Your task to perform on an android device: Open the calendar and show me this week's events? Image 0: 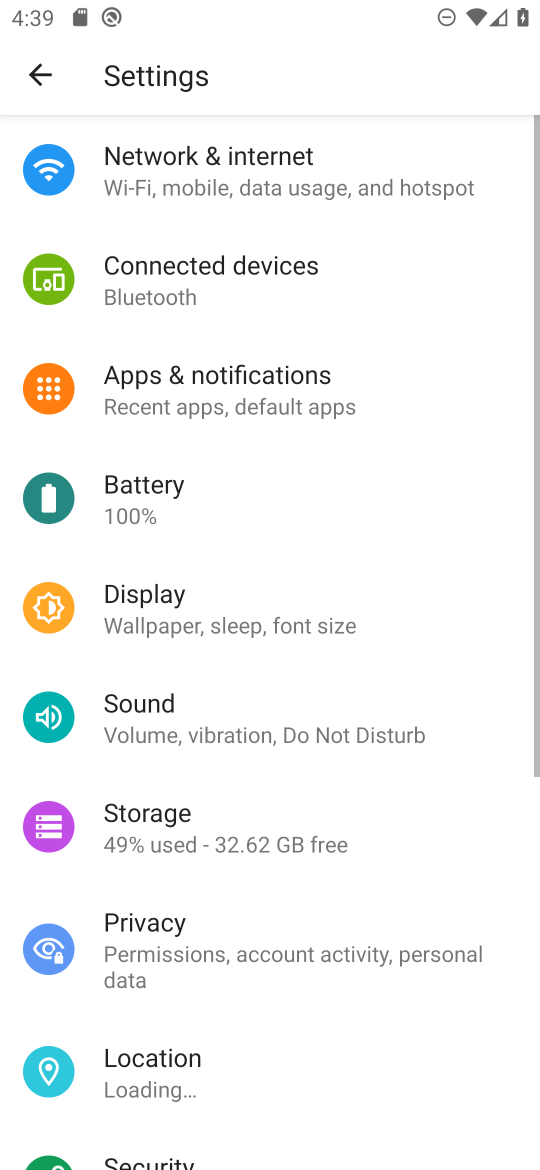
Step 0: press home button
Your task to perform on an android device: Open the calendar and show me this week's events? Image 1: 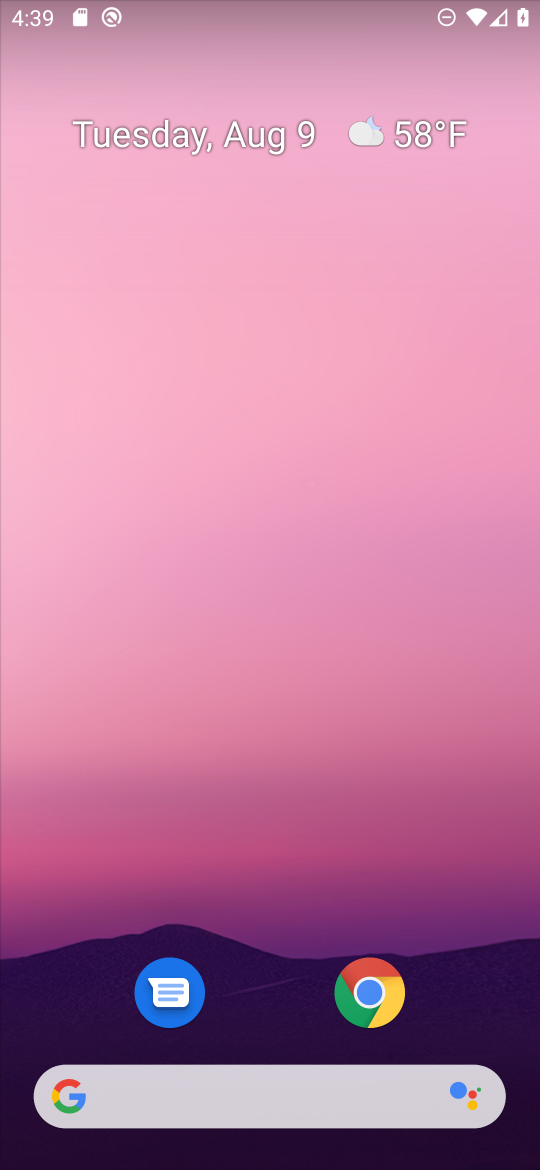
Step 1: drag from (257, 1117) to (289, 9)
Your task to perform on an android device: Open the calendar and show me this week's events? Image 2: 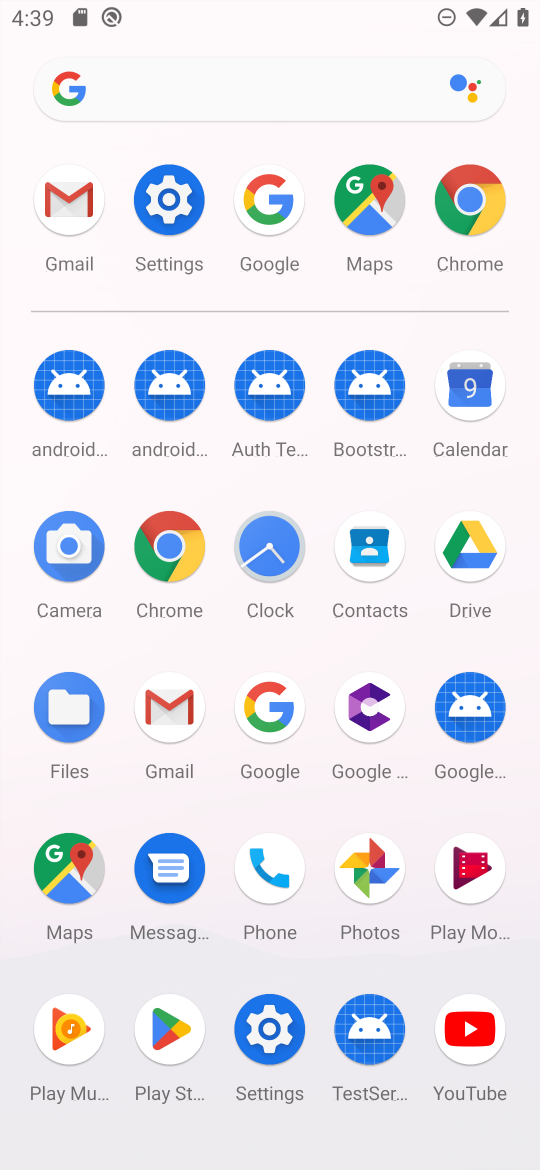
Step 2: click (488, 378)
Your task to perform on an android device: Open the calendar and show me this week's events? Image 3: 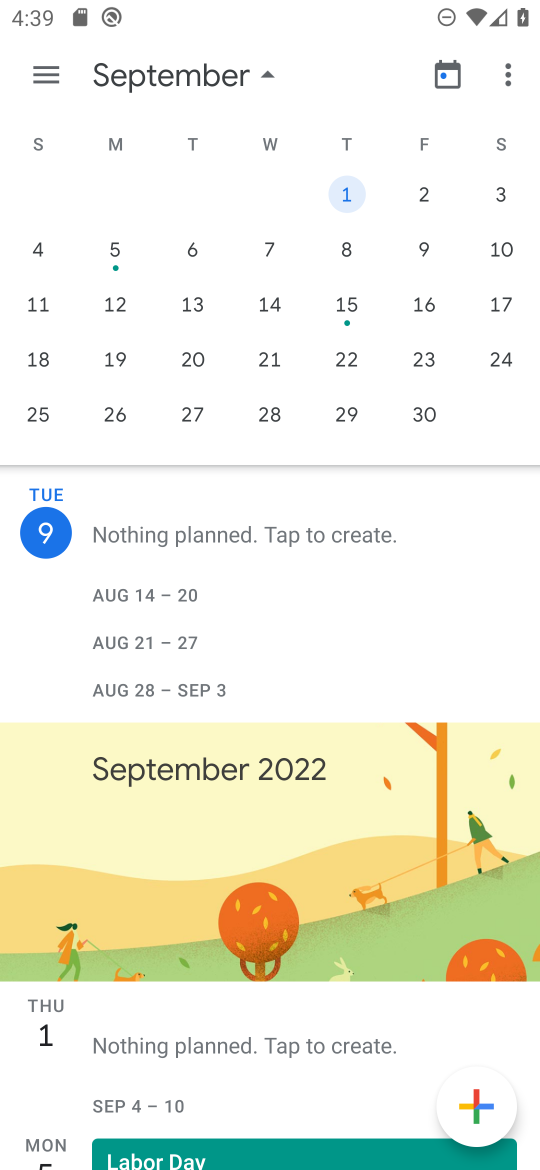
Step 3: drag from (67, 303) to (438, 304)
Your task to perform on an android device: Open the calendar and show me this week's events? Image 4: 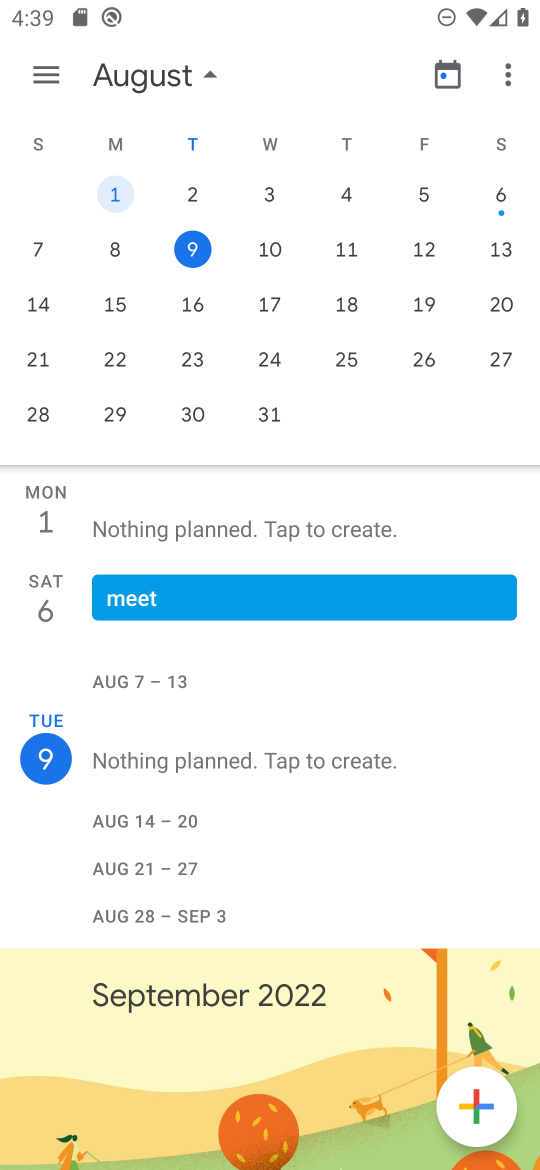
Step 4: click (277, 247)
Your task to perform on an android device: Open the calendar and show me this week's events? Image 5: 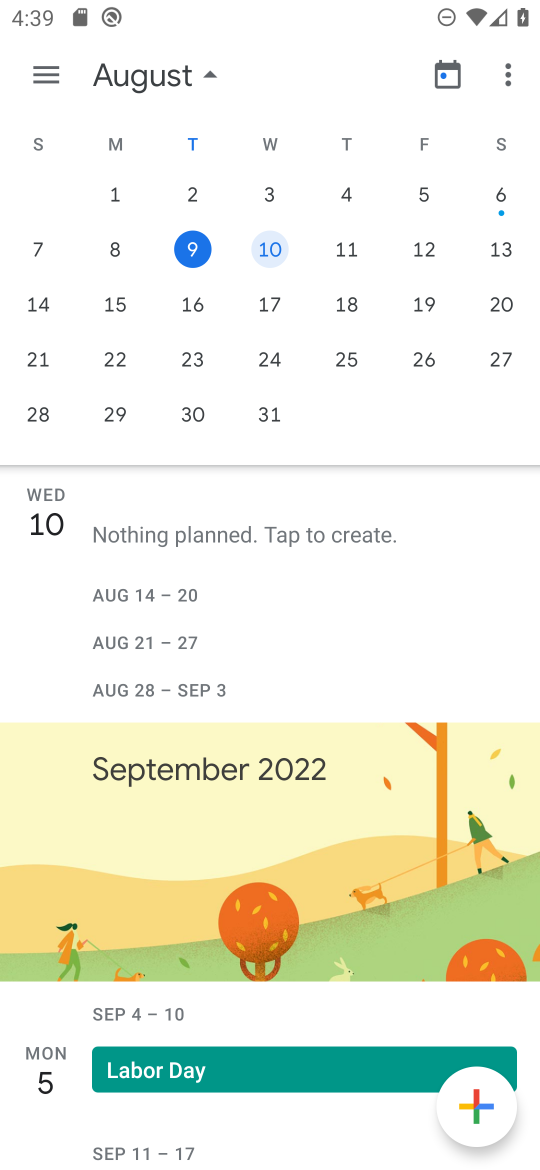
Step 5: task complete